Your task to perform on an android device: add a contact in the contacts app Image 0: 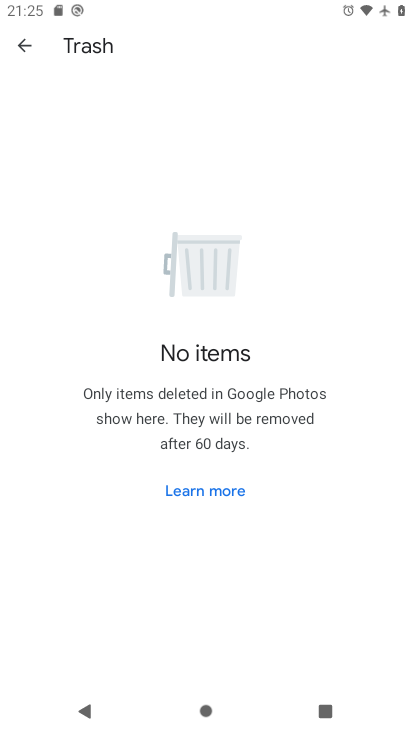
Step 0: press home button
Your task to perform on an android device: add a contact in the contacts app Image 1: 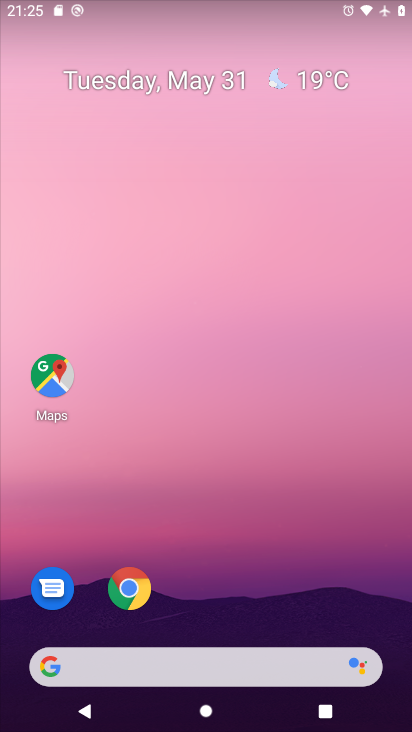
Step 1: drag from (140, 665) to (315, 152)
Your task to perform on an android device: add a contact in the contacts app Image 2: 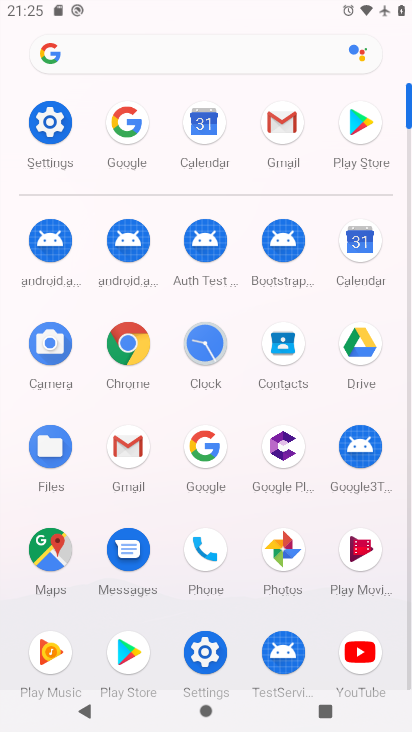
Step 2: click (282, 349)
Your task to perform on an android device: add a contact in the contacts app Image 3: 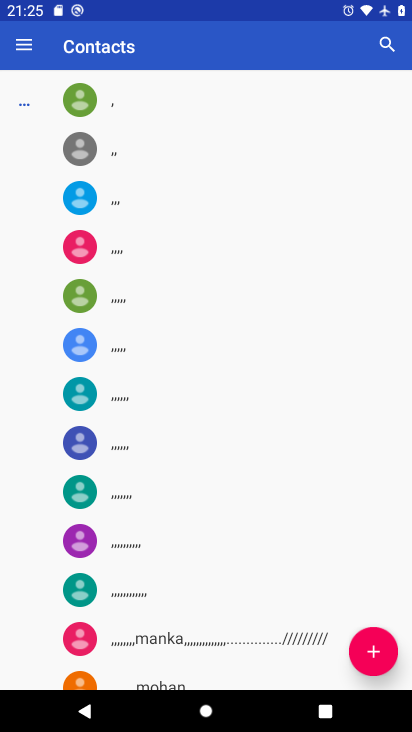
Step 3: click (372, 650)
Your task to perform on an android device: add a contact in the contacts app Image 4: 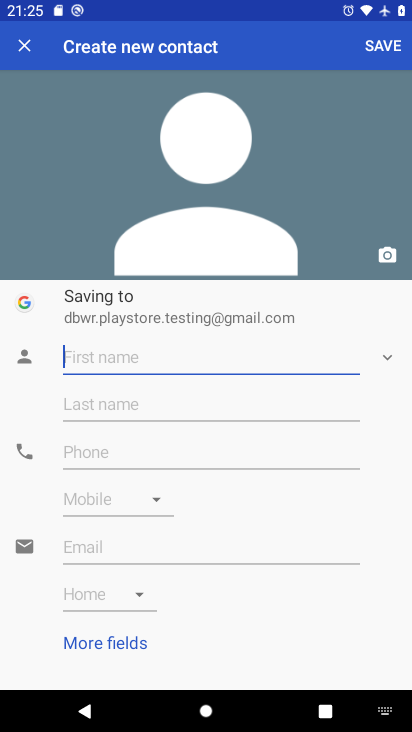
Step 4: type "akdhrtthgh"
Your task to perform on an android device: add a contact in the contacts app Image 5: 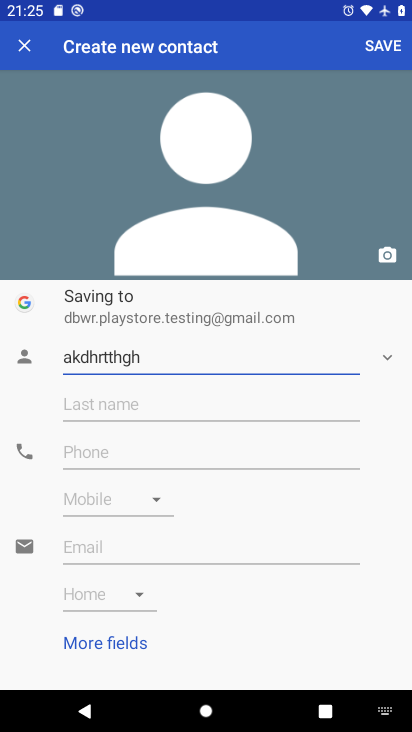
Step 5: click (107, 451)
Your task to perform on an android device: add a contact in the contacts app Image 6: 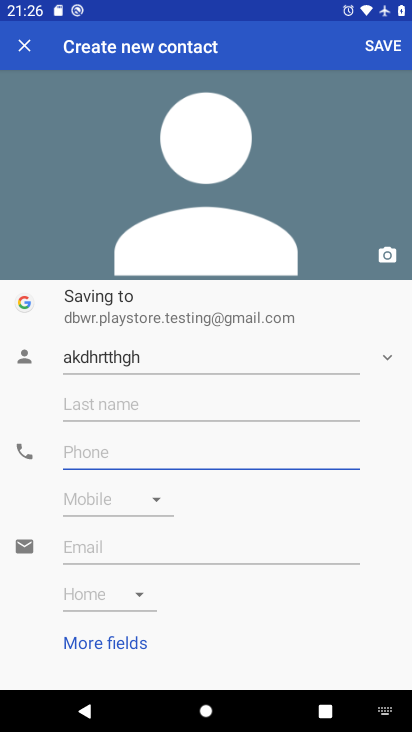
Step 6: type "576384757"
Your task to perform on an android device: add a contact in the contacts app Image 7: 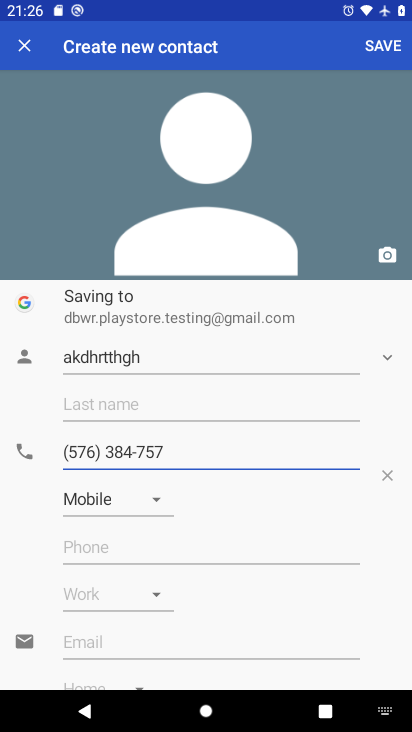
Step 7: click (385, 43)
Your task to perform on an android device: add a contact in the contacts app Image 8: 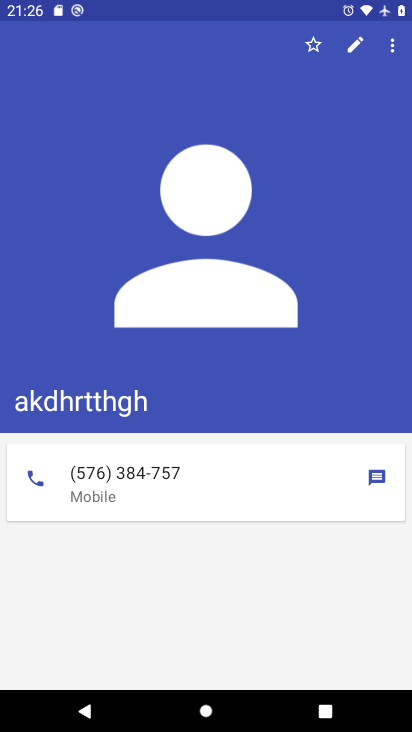
Step 8: task complete